Your task to perform on an android device: set the timer Image 0: 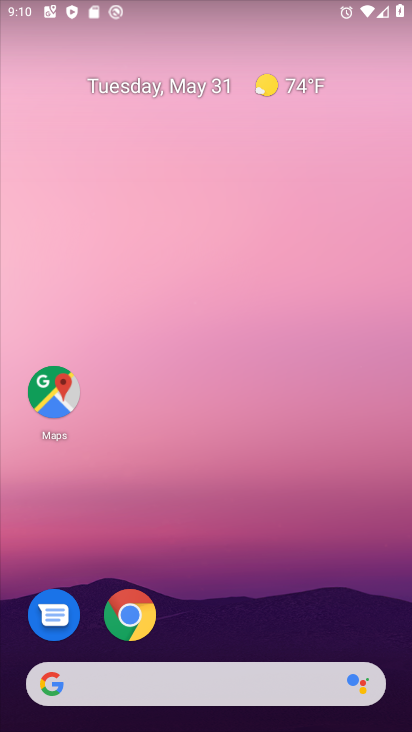
Step 0: drag from (230, 623) to (242, 140)
Your task to perform on an android device: set the timer Image 1: 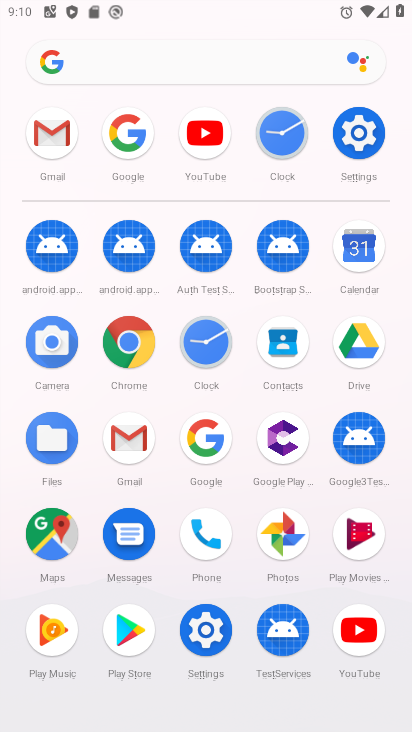
Step 1: click (291, 146)
Your task to perform on an android device: set the timer Image 2: 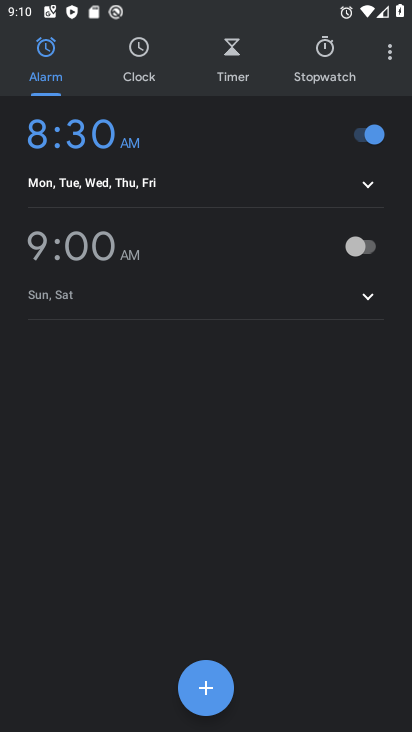
Step 2: click (237, 62)
Your task to perform on an android device: set the timer Image 3: 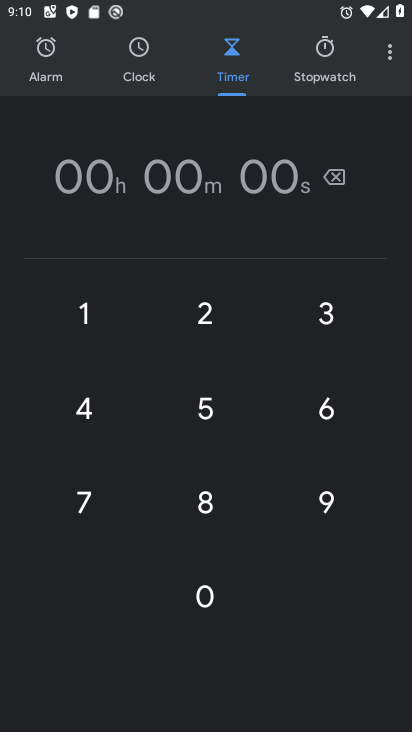
Step 3: click (276, 169)
Your task to perform on an android device: set the timer Image 4: 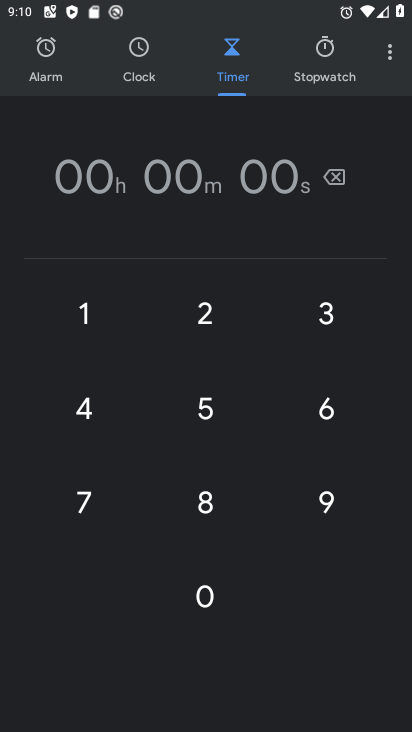
Step 4: click (288, 167)
Your task to perform on an android device: set the timer Image 5: 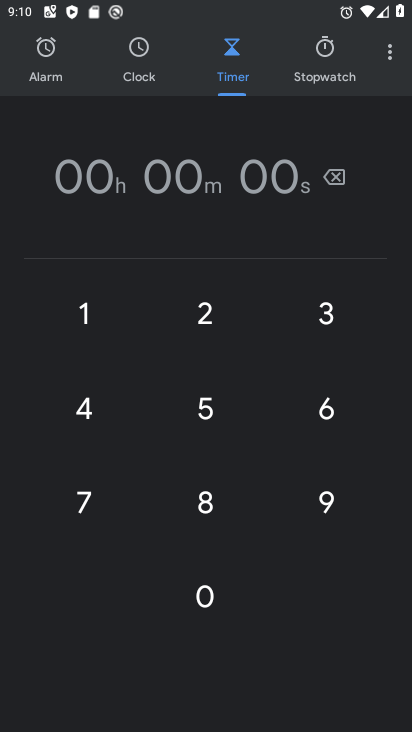
Step 5: type "11"
Your task to perform on an android device: set the timer Image 6: 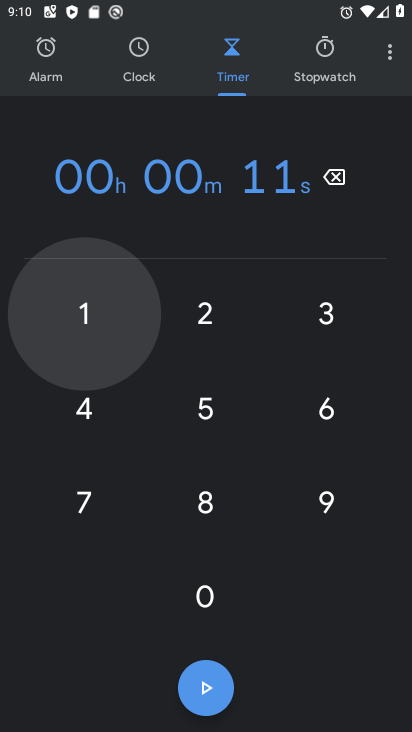
Step 6: click (189, 704)
Your task to perform on an android device: set the timer Image 7: 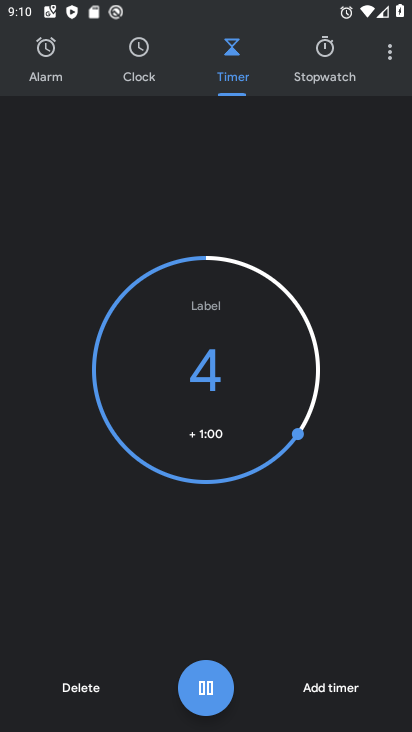
Step 7: task complete